Your task to perform on an android device: Do I have any events this weekend? Image 0: 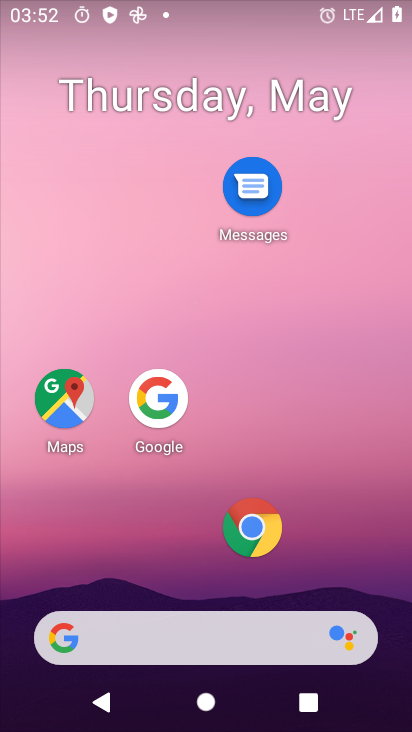
Step 0: drag from (206, 554) to (289, 192)
Your task to perform on an android device: Do I have any events this weekend? Image 1: 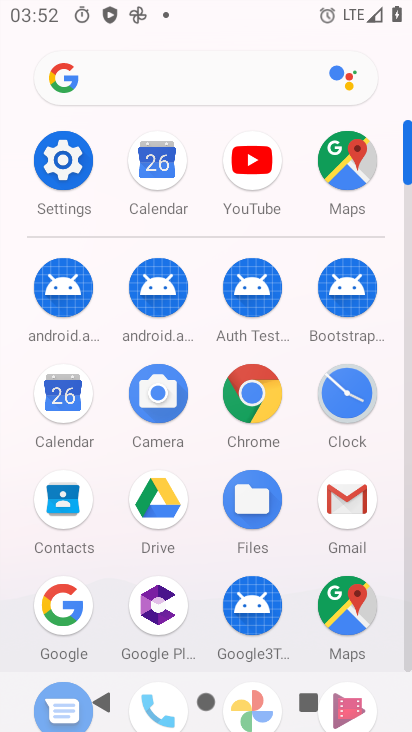
Step 1: click (59, 157)
Your task to perform on an android device: Do I have any events this weekend? Image 2: 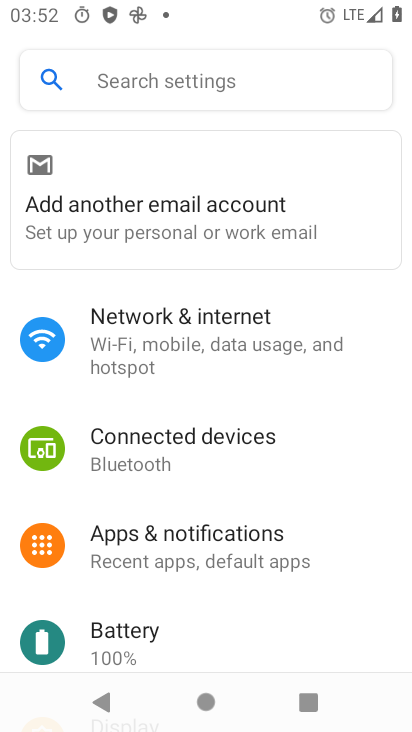
Step 2: press home button
Your task to perform on an android device: Do I have any events this weekend? Image 3: 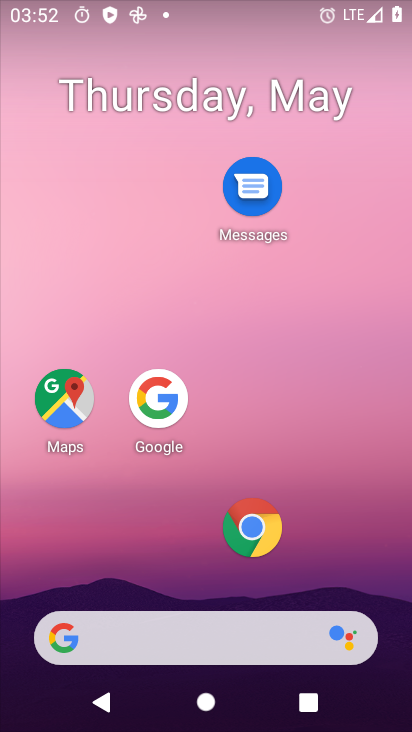
Step 3: drag from (201, 592) to (152, 105)
Your task to perform on an android device: Do I have any events this weekend? Image 4: 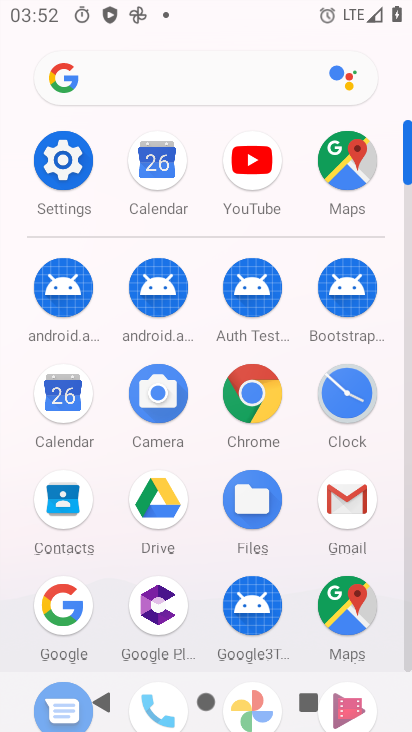
Step 4: click (66, 406)
Your task to perform on an android device: Do I have any events this weekend? Image 5: 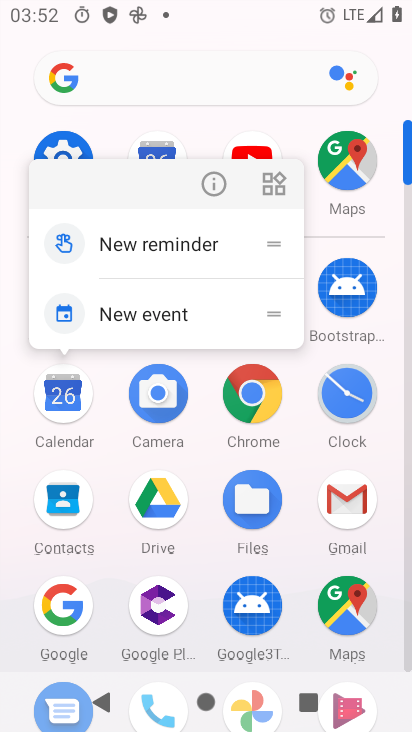
Step 5: click (212, 187)
Your task to perform on an android device: Do I have any events this weekend? Image 6: 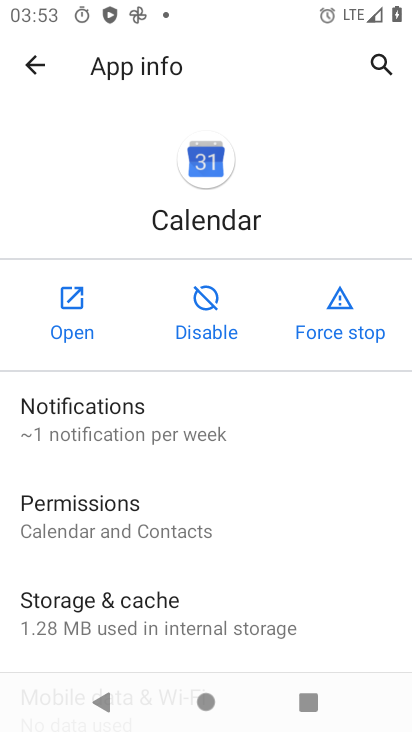
Step 6: click (67, 302)
Your task to perform on an android device: Do I have any events this weekend? Image 7: 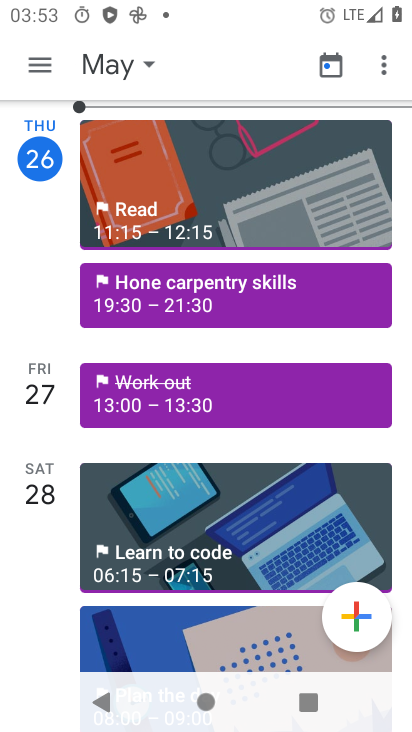
Step 7: click (188, 80)
Your task to perform on an android device: Do I have any events this weekend? Image 8: 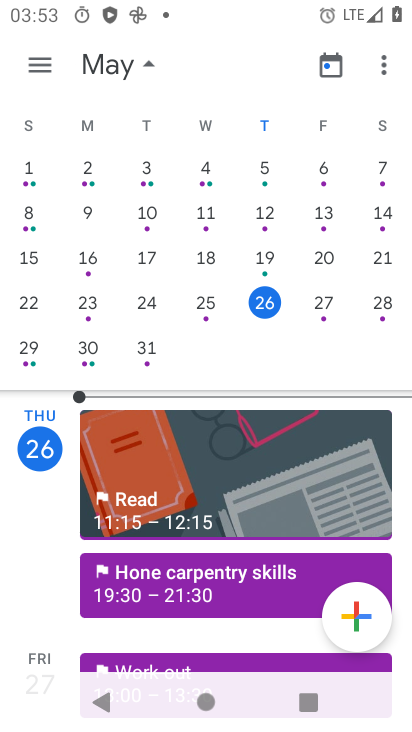
Step 8: click (326, 295)
Your task to perform on an android device: Do I have any events this weekend? Image 9: 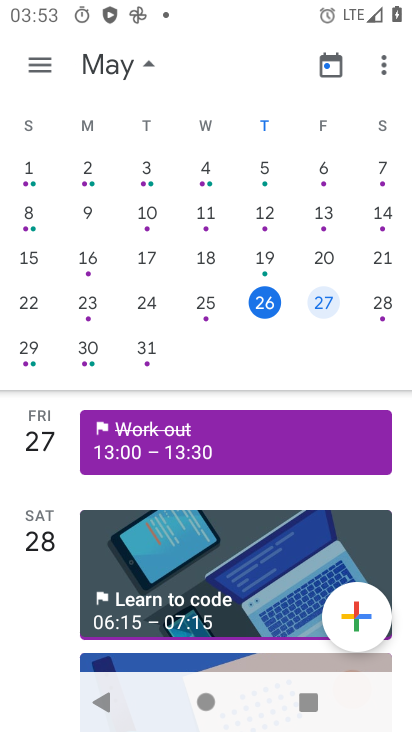
Step 9: task complete